Your task to perform on an android device: set the timer Image 0: 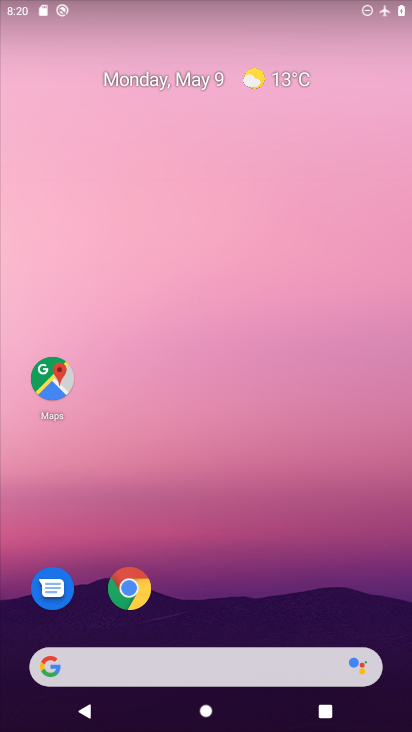
Step 0: drag from (261, 535) to (5, 7)
Your task to perform on an android device: set the timer Image 1: 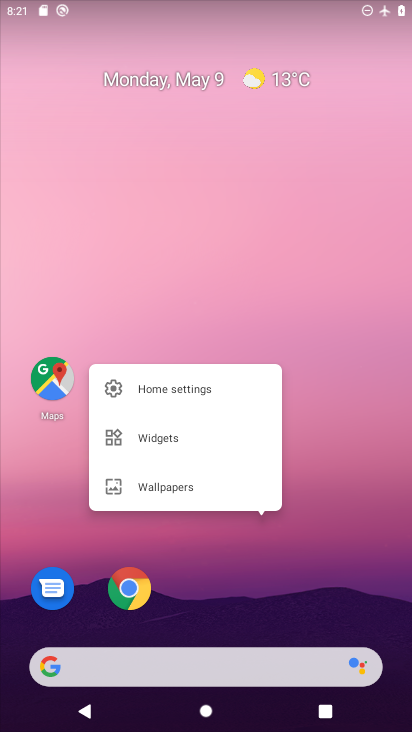
Step 1: click (316, 523)
Your task to perform on an android device: set the timer Image 2: 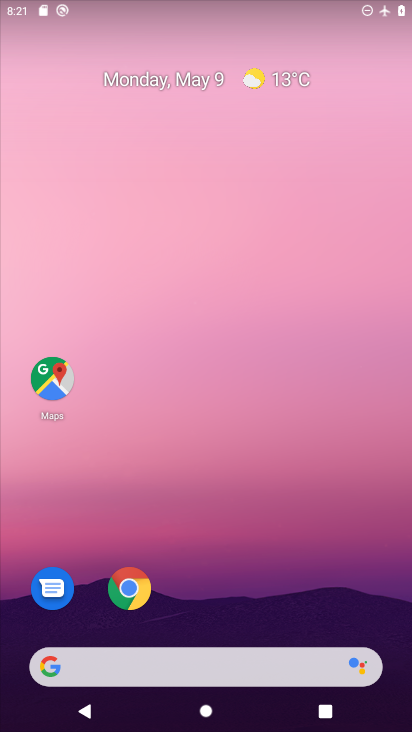
Step 2: drag from (316, 523) to (278, 38)
Your task to perform on an android device: set the timer Image 3: 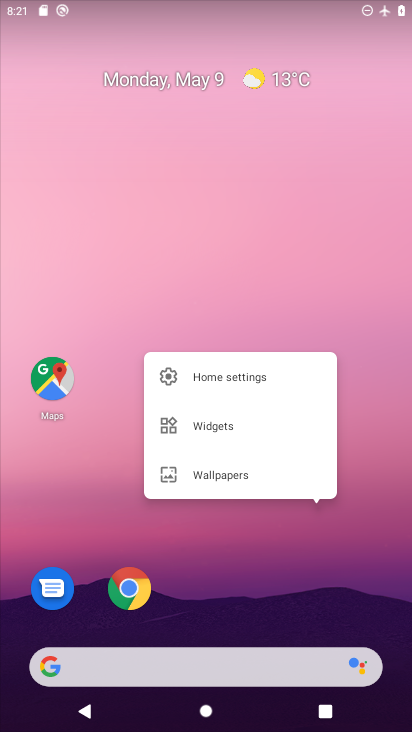
Step 3: click (303, 555)
Your task to perform on an android device: set the timer Image 4: 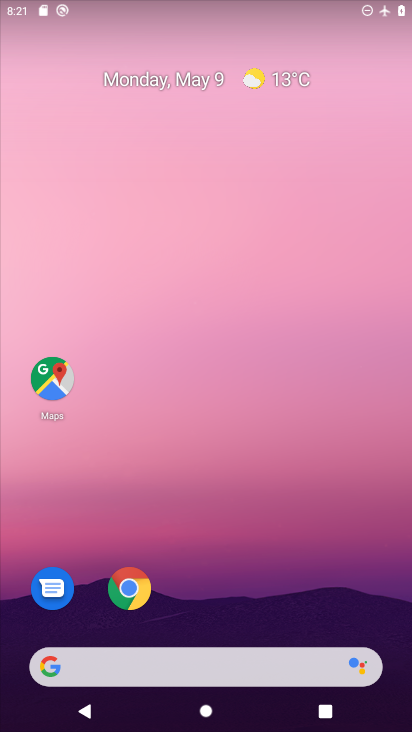
Step 4: drag from (303, 555) to (358, 146)
Your task to perform on an android device: set the timer Image 5: 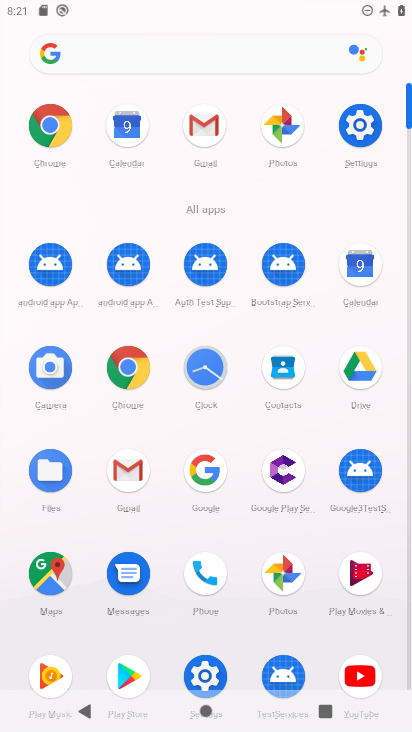
Step 5: click (220, 367)
Your task to perform on an android device: set the timer Image 6: 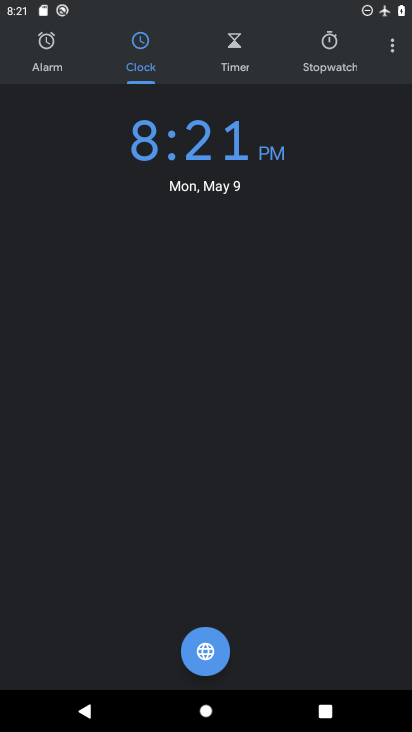
Step 6: click (246, 61)
Your task to perform on an android device: set the timer Image 7: 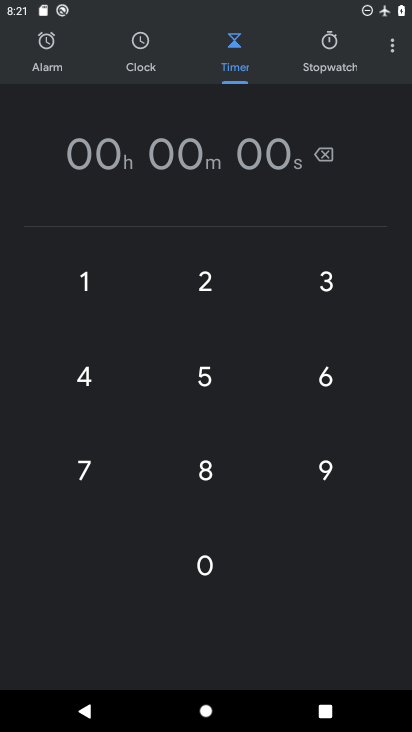
Step 7: task complete